Your task to perform on an android device: Show me productivity apps on the Play Store Image 0: 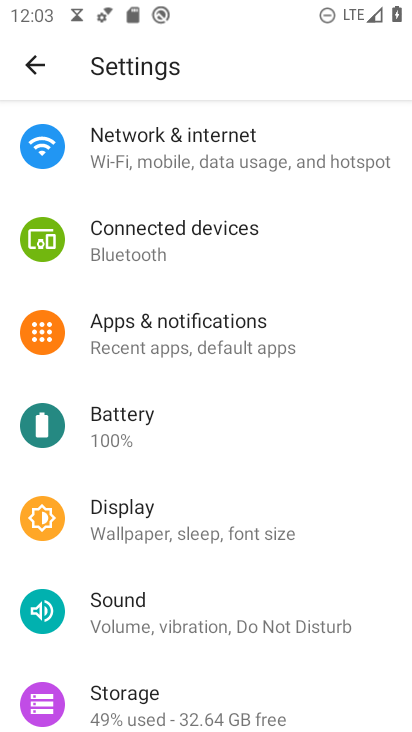
Step 0: press home button
Your task to perform on an android device: Show me productivity apps on the Play Store Image 1: 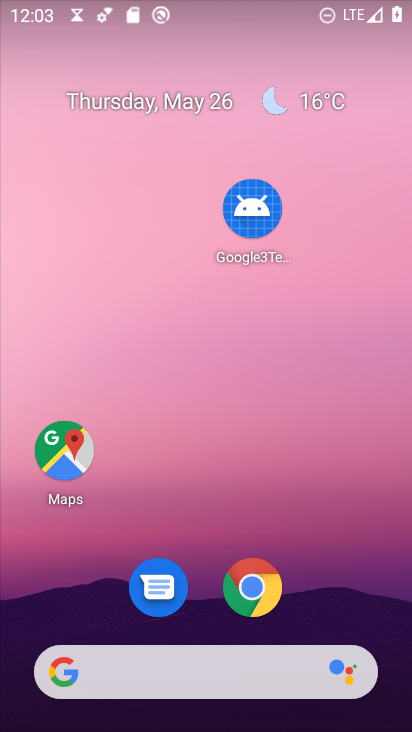
Step 1: drag from (205, 655) to (170, 8)
Your task to perform on an android device: Show me productivity apps on the Play Store Image 2: 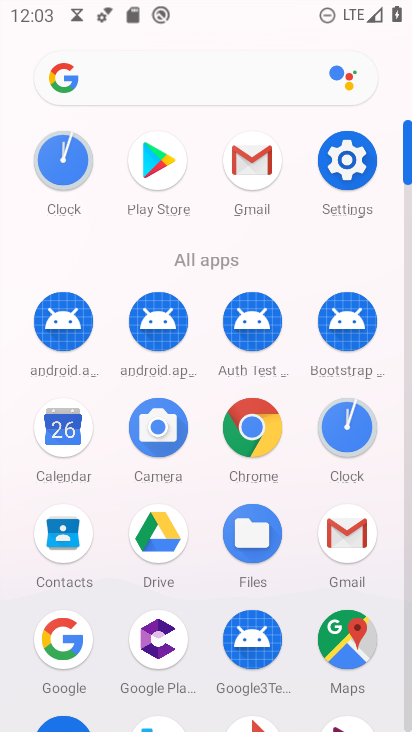
Step 2: drag from (214, 611) to (229, 94)
Your task to perform on an android device: Show me productivity apps on the Play Store Image 3: 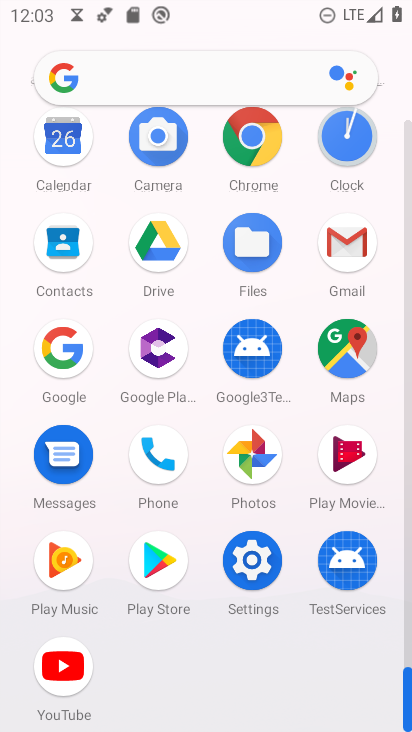
Step 3: click (159, 557)
Your task to perform on an android device: Show me productivity apps on the Play Store Image 4: 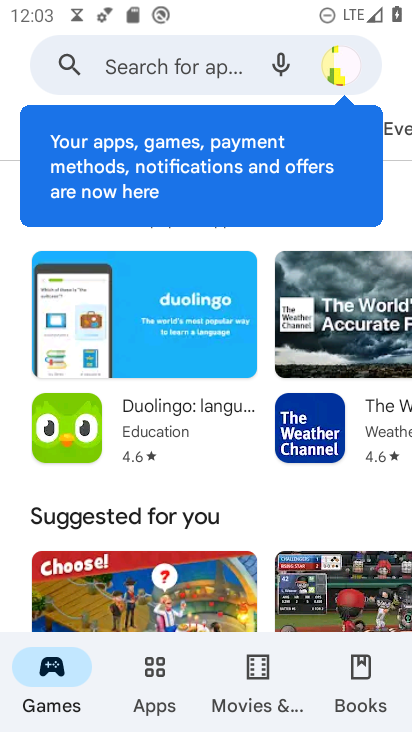
Step 4: click (155, 706)
Your task to perform on an android device: Show me productivity apps on the Play Store Image 5: 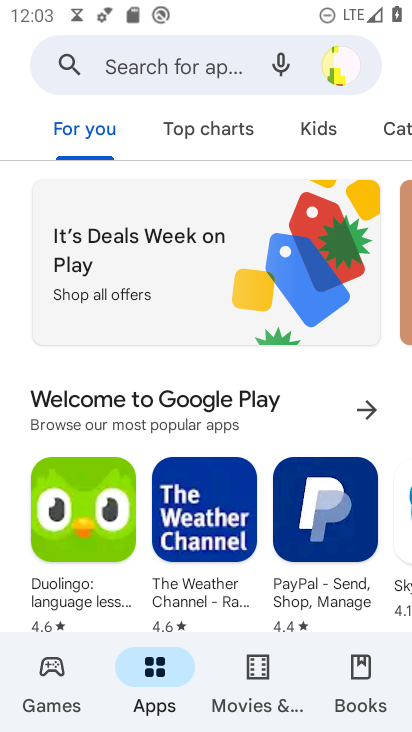
Step 5: drag from (216, 600) to (187, 207)
Your task to perform on an android device: Show me productivity apps on the Play Store Image 6: 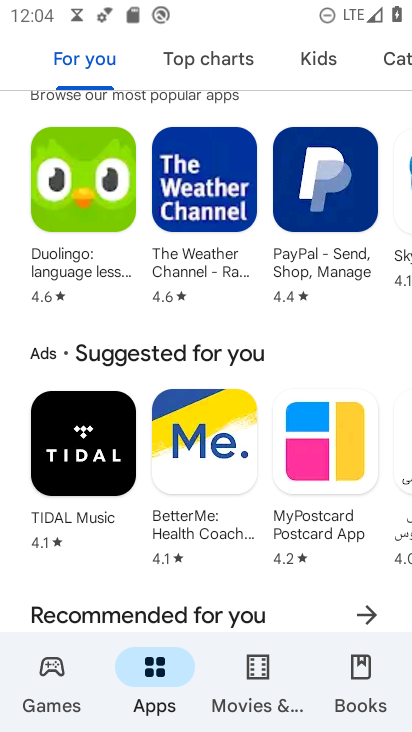
Step 6: click (374, 66)
Your task to perform on an android device: Show me productivity apps on the Play Store Image 7: 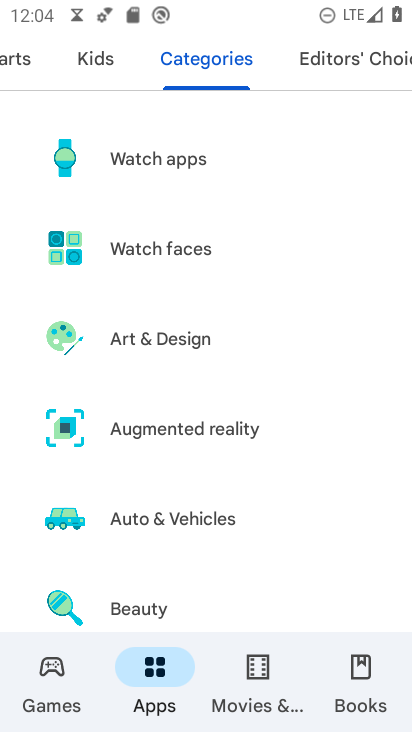
Step 7: drag from (164, 569) to (172, 34)
Your task to perform on an android device: Show me productivity apps on the Play Store Image 8: 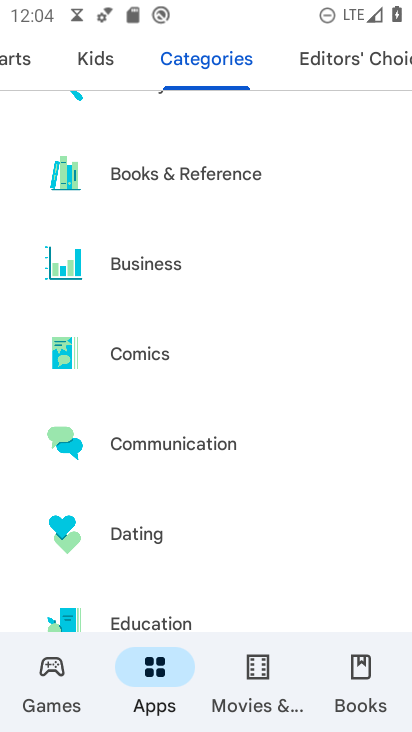
Step 8: drag from (220, 583) to (208, 16)
Your task to perform on an android device: Show me productivity apps on the Play Store Image 9: 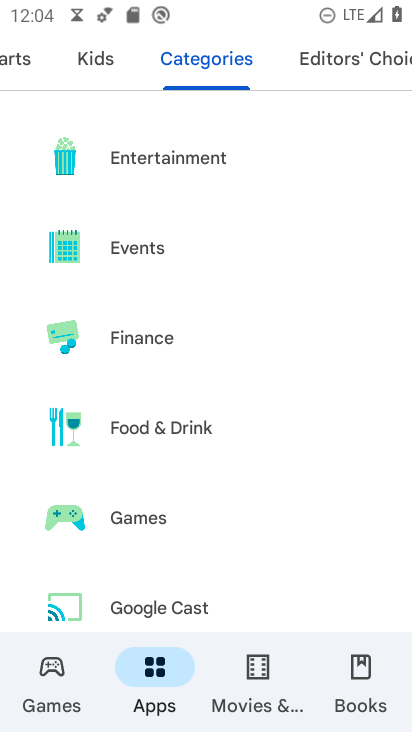
Step 9: drag from (170, 605) to (252, 13)
Your task to perform on an android device: Show me productivity apps on the Play Store Image 10: 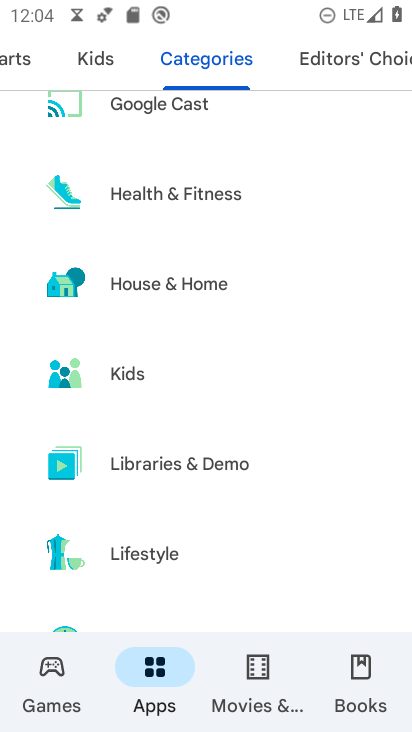
Step 10: drag from (192, 534) to (126, 93)
Your task to perform on an android device: Show me productivity apps on the Play Store Image 11: 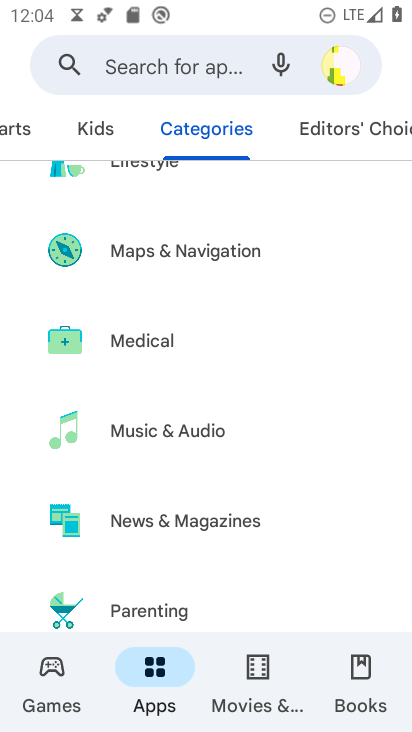
Step 11: drag from (199, 557) to (220, 62)
Your task to perform on an android device: Show me productivity apps on the Play Store Image 12: 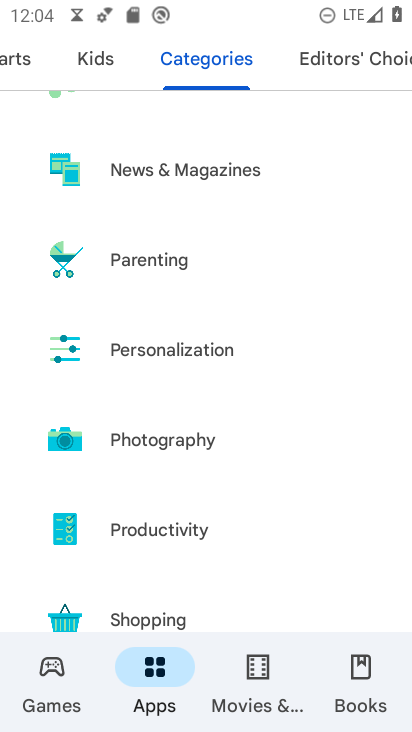
Step 12: click (185, 526)
Your task to perform on an android device: Show me productivity apps on the Play Store Image 13: 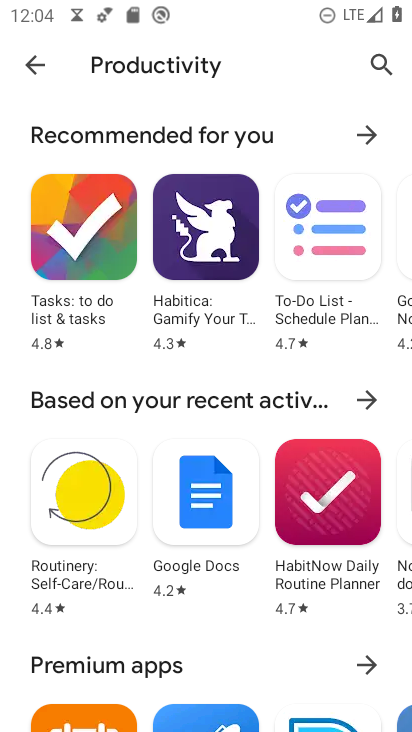
Step 13: task complete